Your task to perform on an android device: clear history in the chrome app Image 0: 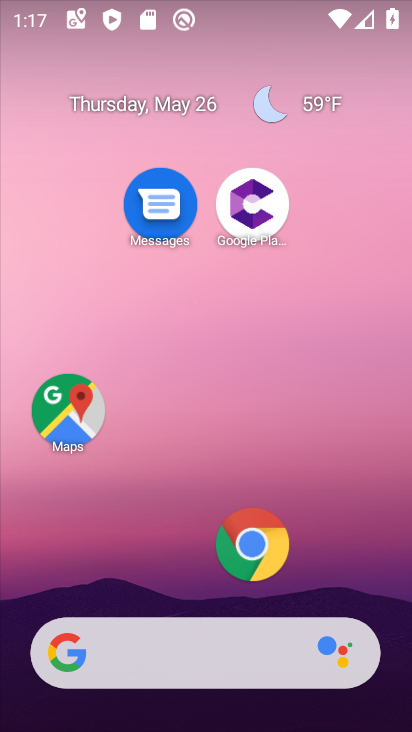
Step 0: click (254, 551)
Your task to perform on an android device: clear history in the chrome app Image 1: 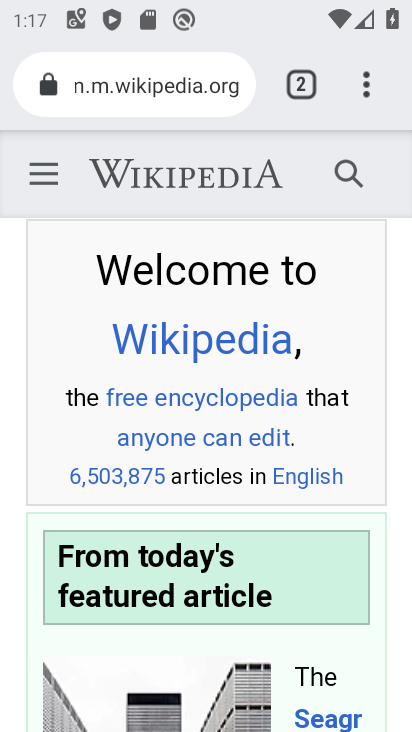
Step 1: click (388, 70)
Your task to perform on an android device: clear history in the chrome app Image 2: 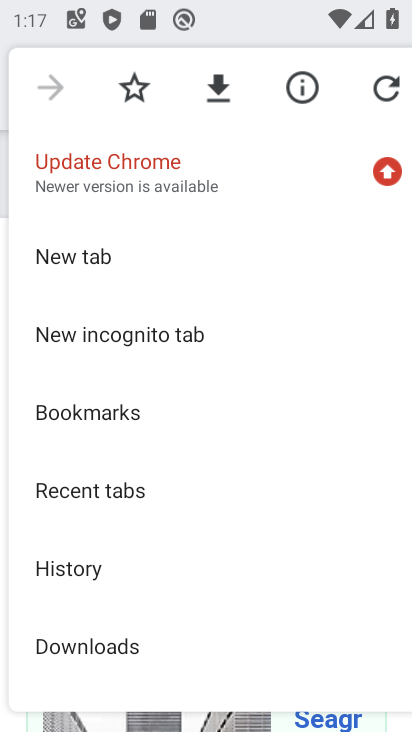
Step 2: click (74, 573)
Your task to perform on an android device: clear history in the chrome app Image 3: 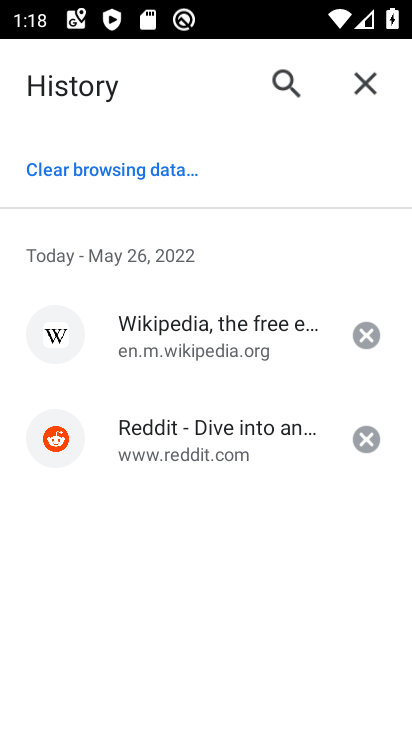
Step 3: click (144, 178)
Your task to perform on an android device: clear history in the chrome app Image 4: 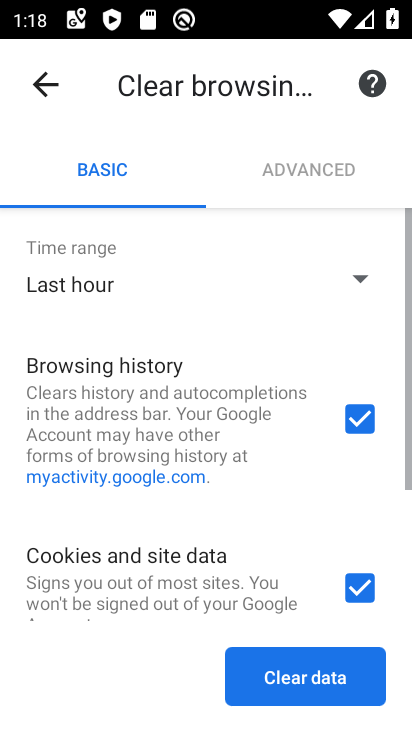
Step 4: click (270, 687)
Your task to perform on an android device: clear history in the chrome app Image 5: 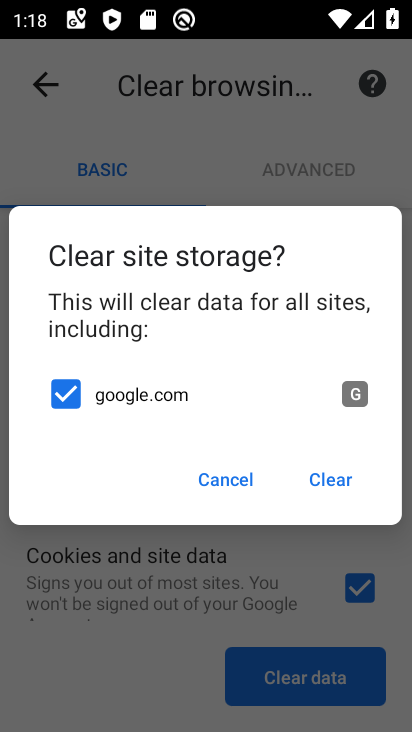
Step 5: click (303, 467)
Your task to perform on an android device: clear history in the chrome app Image 6: 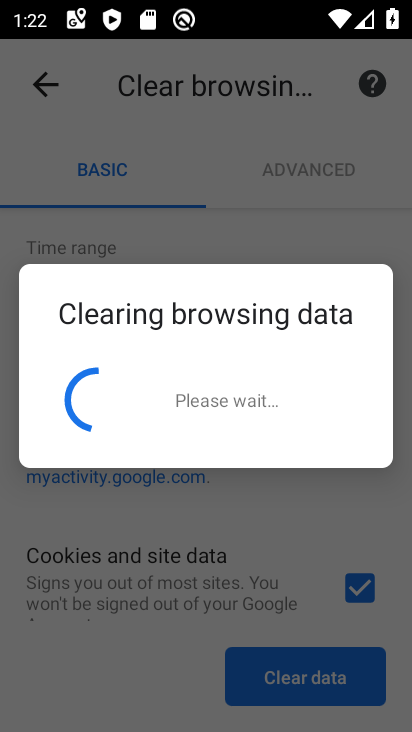
Step 6: task complete